Your task to perform on an android device: What's the news this month? Image 0: 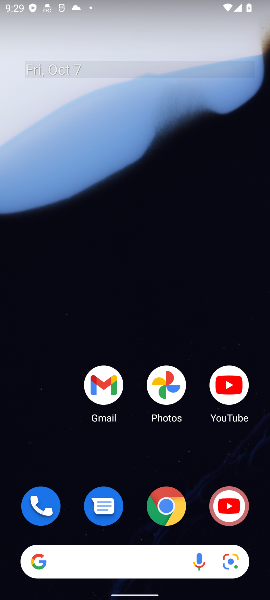
Step 0: click (166, 511)
Your task to perform on an android device: What's the news this month? Image 1: 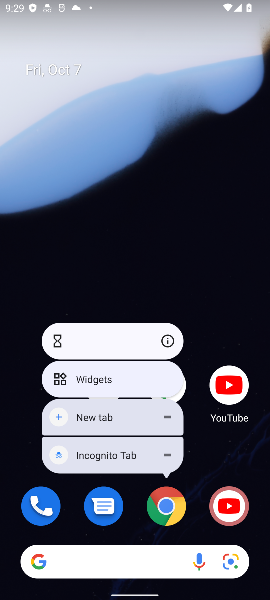
Step 1: click (177, 506)
Your task to perform on an android device: What's the news this month? Image 2: 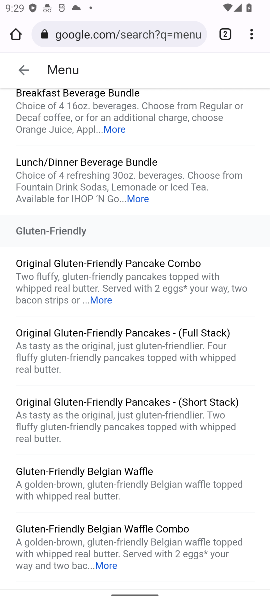
Step 2: click (126, 31)
Your task to perform on an android device: What's the news this month? Image 3: 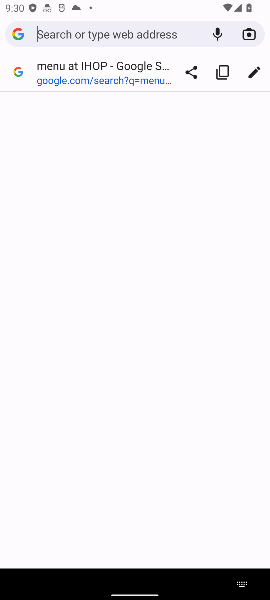
Step 3: type "news this month"
Your task to perform on an android device: What's the news this month? Image 4: 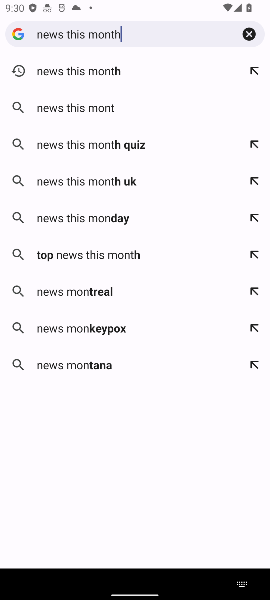
Step 4: press enter
Your task to perform on an android device: What's the news this month? Image 5: 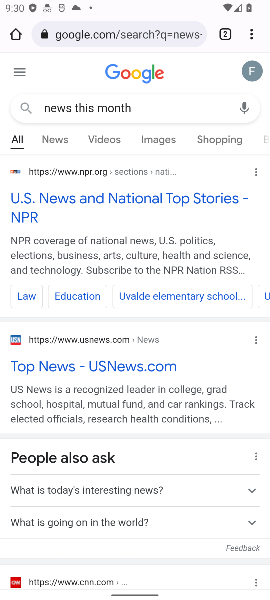
Step 5: click (56, 138)
Your task to perform on an android device: What's the news this month? Image 6: 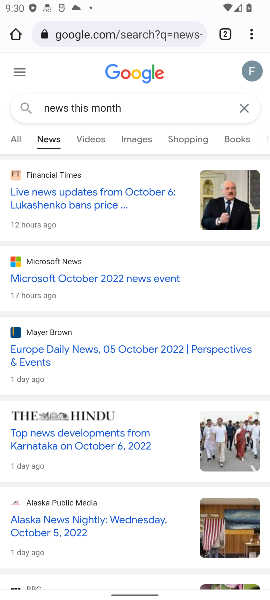
Step 6: task complete